Your task to perform on an android device: set default search engine in the chrome app Image 0: 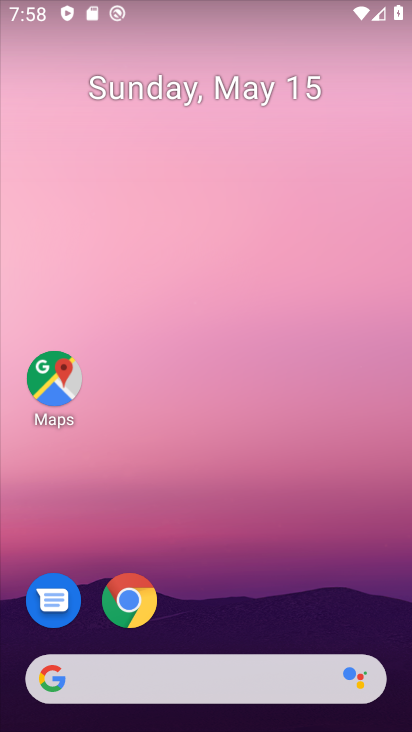
Step 0: click (124, 610)
Your task to perform on an android device: set default search engine in the chrome app Image 1: 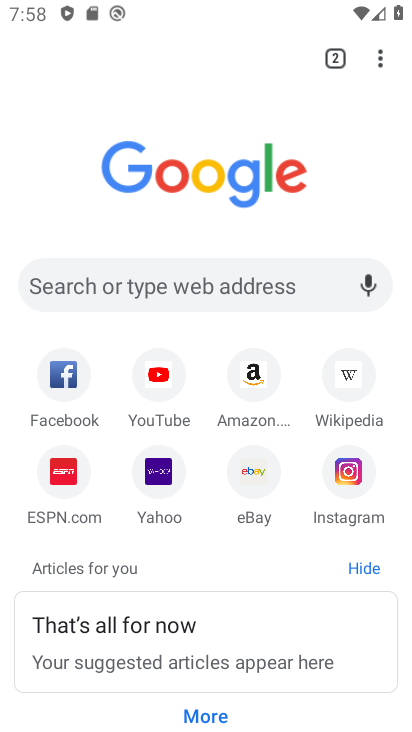
Step 1: click (381, 52)
Your task to perform on an android device: set default search engine in the chrome app Image 2: 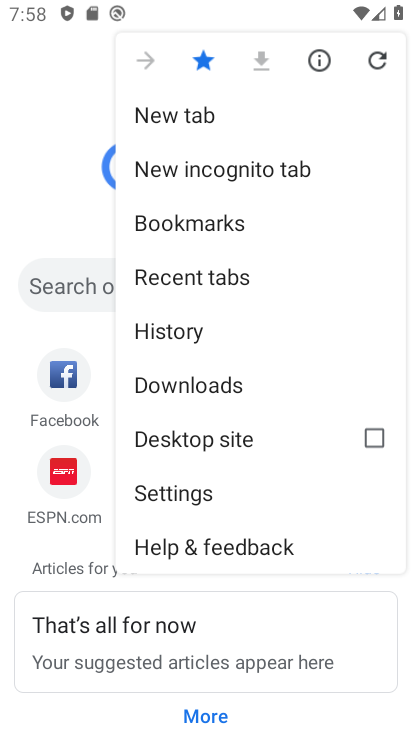
Step 2: click (196, 491)
Your task to perform on an android device: set default search engine in the chrome app Image 3: 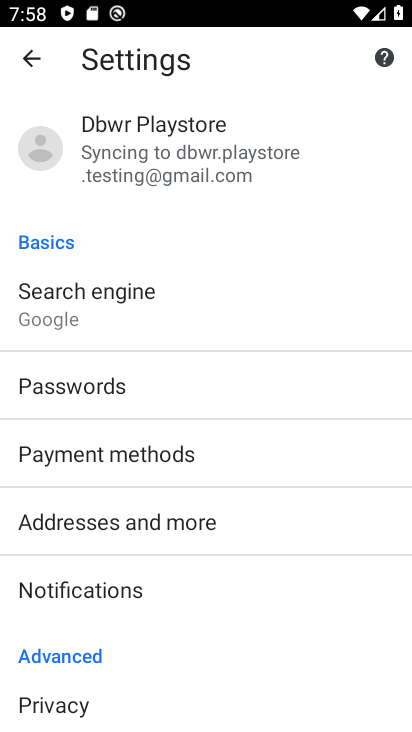
Step 3: drag from (120, 648) to (105, 319)
Your task to perform on an android device: set default search engine in the chrome app Image 4: 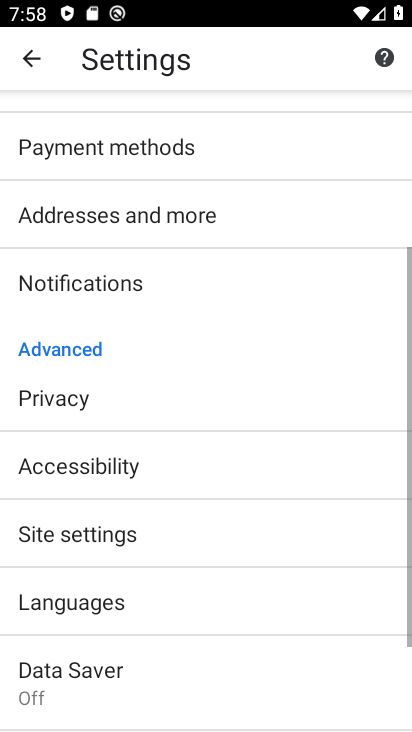
Step 4: drag from (105, 285) to (115, 588)
Your task to perform on an android device: set default search engine in the chrome app Image 5: 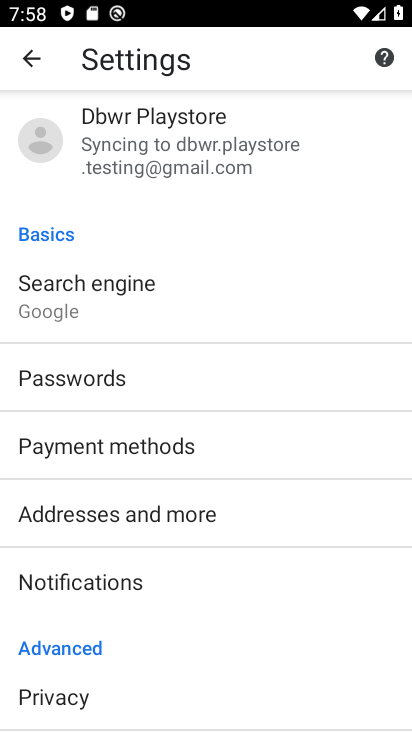
Step 5: click (65, 288)
Your task to perform on an android device: set default search engine in the chrome app Image 6: 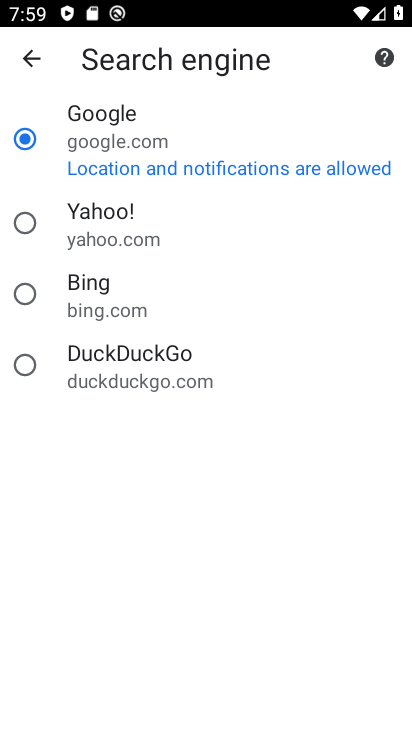
Step 6: click (110, 371)
Your task to perform on an android device: set default search engine in the chrome app Image 7: 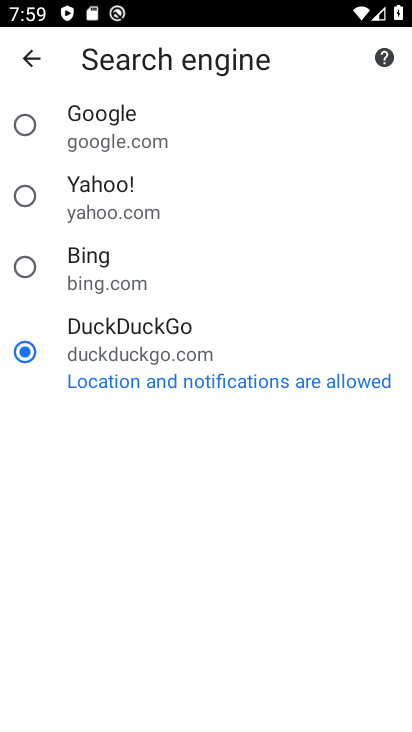
Step 7: task complete